Your task to perform on an android device: toggle show notifications on the lock screen Image 0: 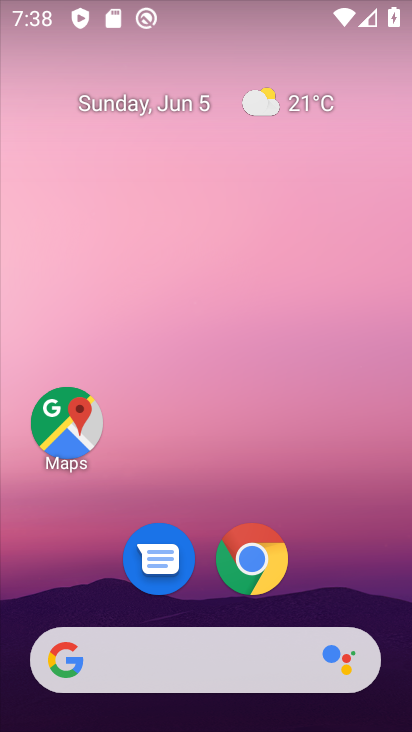
Step 0: drag from (303, 614) to (161, 132)
Your task to perform on an android device: toggle show notifications on the lock screen Image 1: 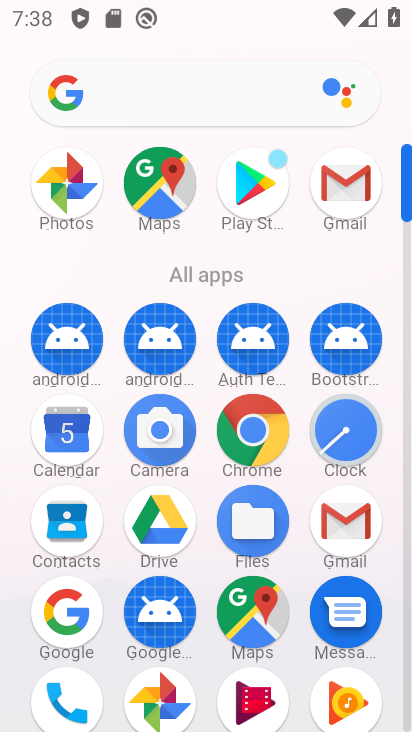
Step 1: drag from (294, 591) to (339, 307)
Your task to perform on an android device: toggle show notifications on the lock screen Image 2: 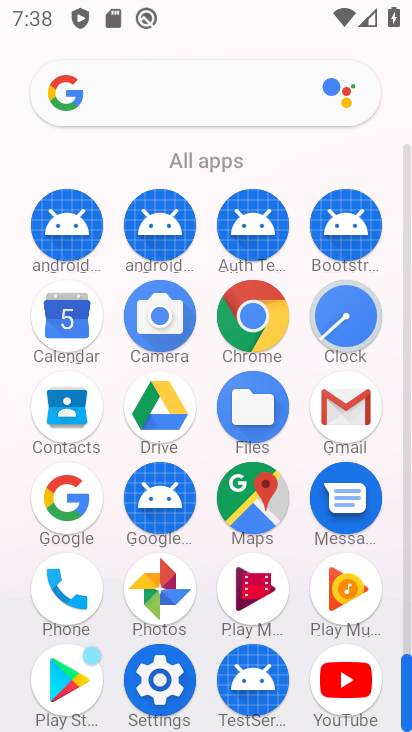
Step 2: click (163, 703)
Your task to perform on an android device: toggle show notifications on the lock screen Image 3: 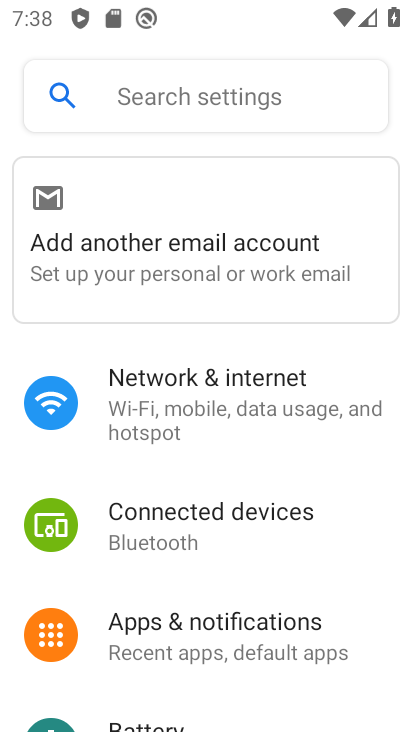
Step 3: click (284, 618)
Your task to perform on an android device: toggle show notifications on the lock screen Image 4: 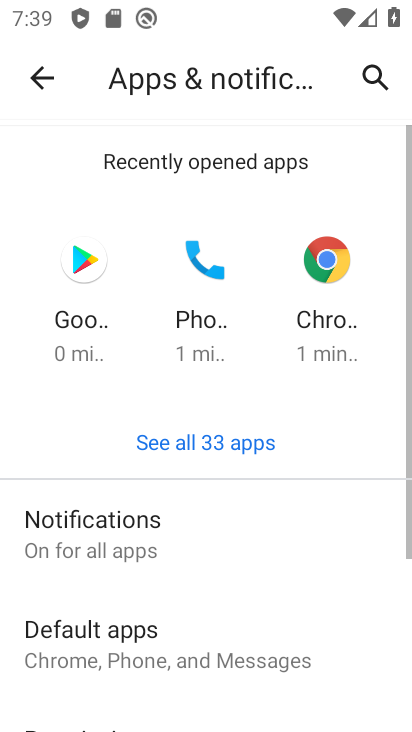
Step 4: click (74, 529)
Your task to perform on an android device: toggle show notifications on the lock screen Image 5: 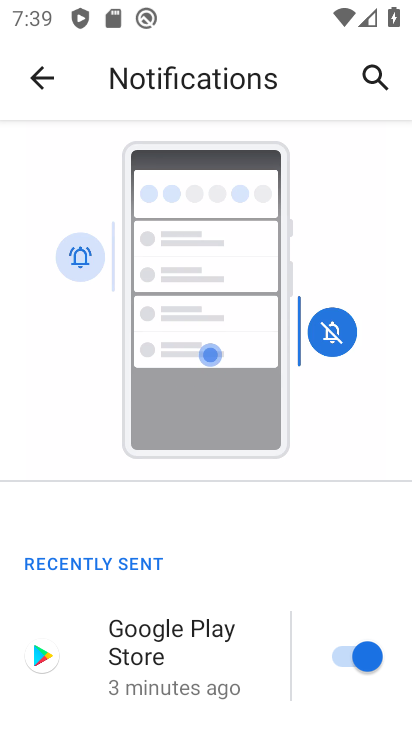
Step 5: drag from (248, 585) to (134, 9)
Your task to perform on an android device: toggle show notifications on the lock screen Image 6: 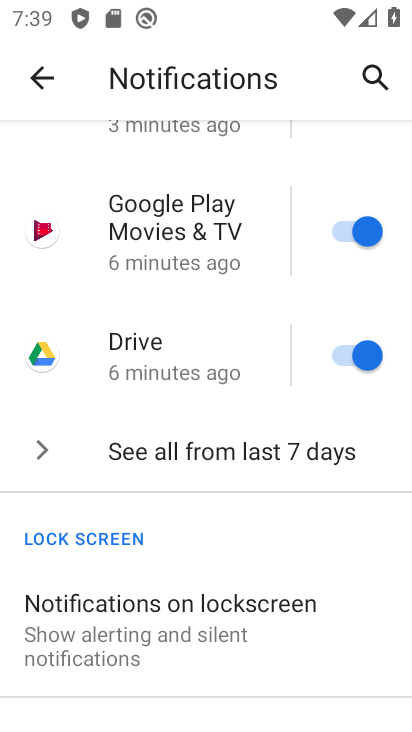
Step 6: click (183, 663)
Your task to perform on an android device: toggle show notifications on the lock screen Image 7: 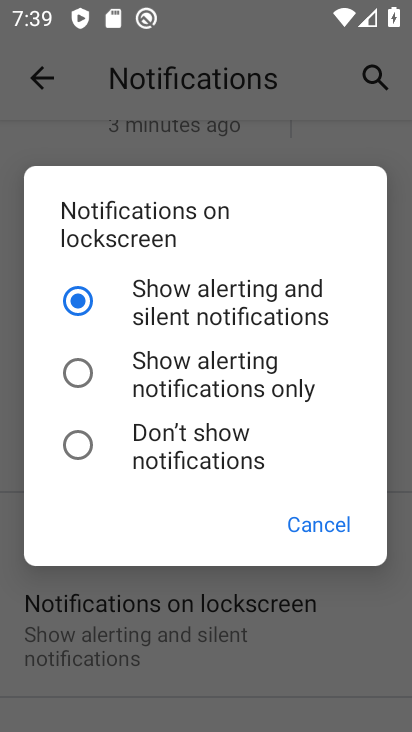
Step 7: click (156, 370)
Your task to perform on an android device: toggle show notifications on the lock screen Image 8: 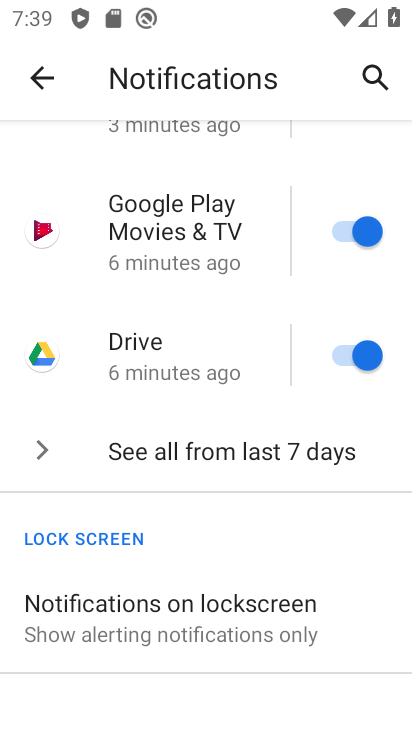
Step 8: task complete